Your task to perform on an android device: Do I have any events tomorrow? Image 0: 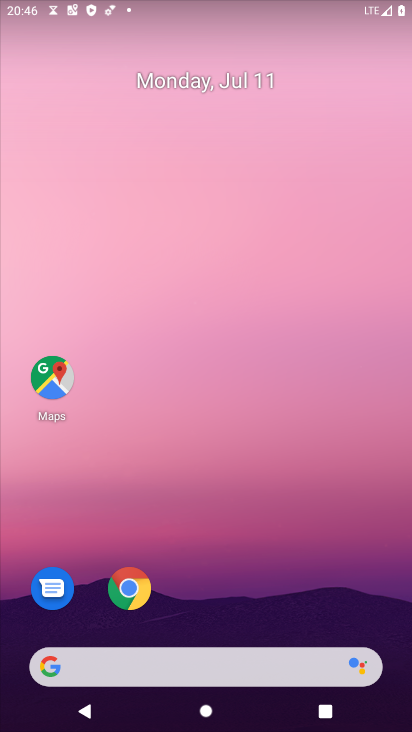
Step 0: drag from (269, 623) to (95, 40)
Your task to perform on an android device: Do I have any events tomorrow? Image 1: 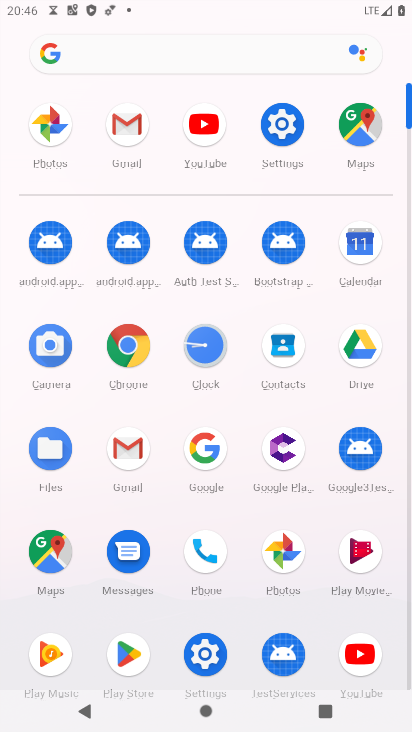
Step 1: click (290, 547)
Your task to perform on an android device: Do I have any events tomorrow? Image 2: 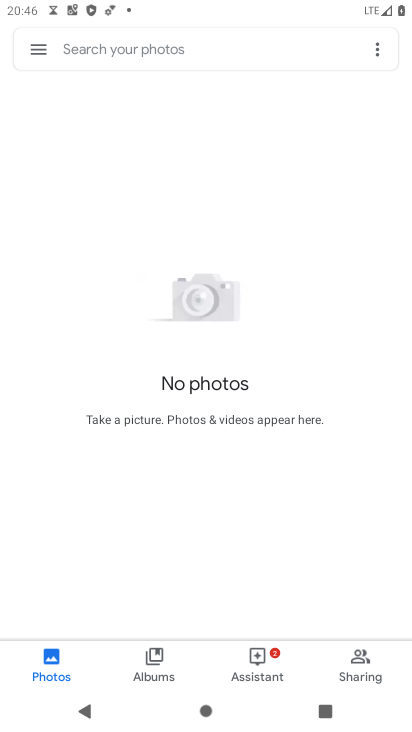
Step 2: task complete